Your task to perform on an android device: Add "razer naga" to the cart on walmart.com Image 0: 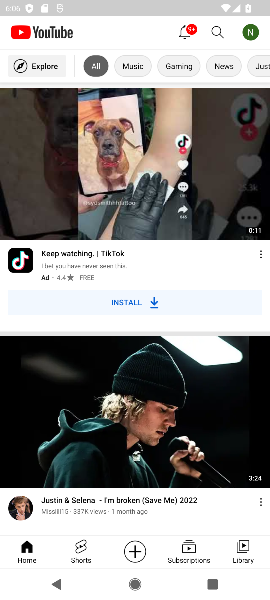
Step 0: press home button
Your task to perform on an android device: Add "razer naga" to the cart on walmart.com Image 1: 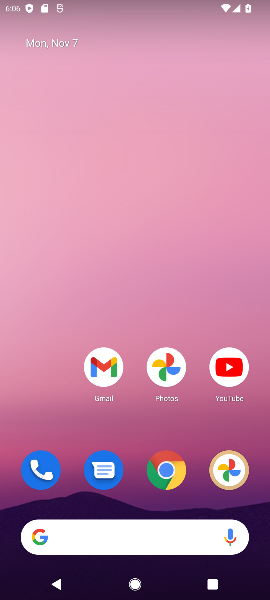
Step 1: click (176, 454)
Your task to perform on an android device: Add "razer naga" to the cart on walmart.com Image 2: 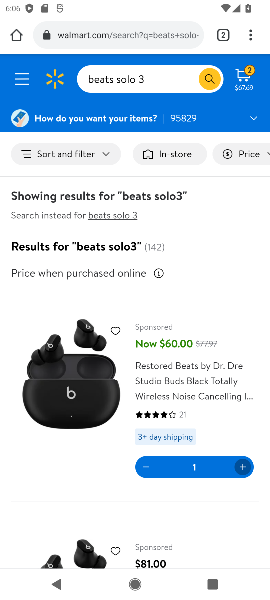
Step 2: click (134, 39)
Your task to perform on an android device: Add "razer naga" to the cart on walmart.com Image 3: 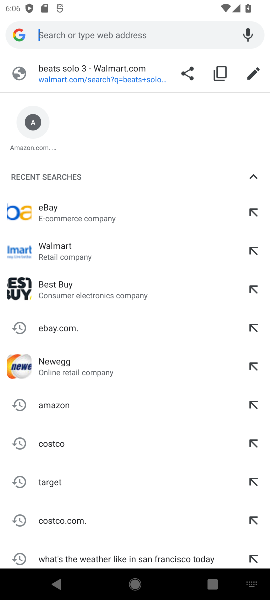
Step 3: click (55, 250)
Your task to perform on an android device: Add "razer naga" to the cart on walmart.com Image 4: 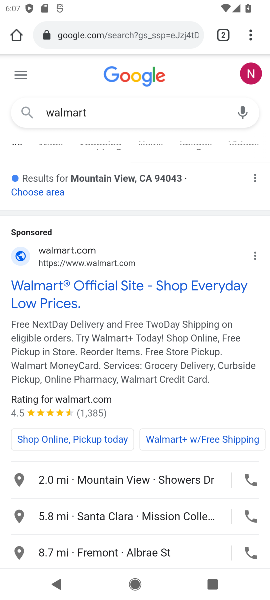
Step 4: click (51, 294)
Your task to perform on an android device: Add "razer naga" to the cart on walmart.com Image 5: 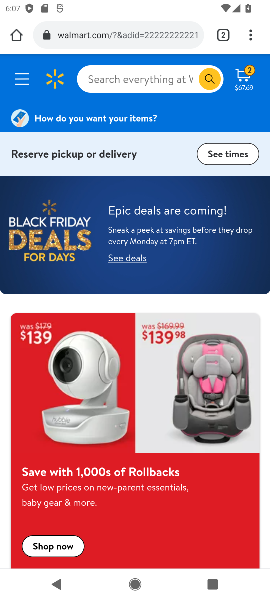
Step 5: click (101, 75)
Your task to perform on an android device: Add "razer naga" to the cart on walmart.com Image 6: 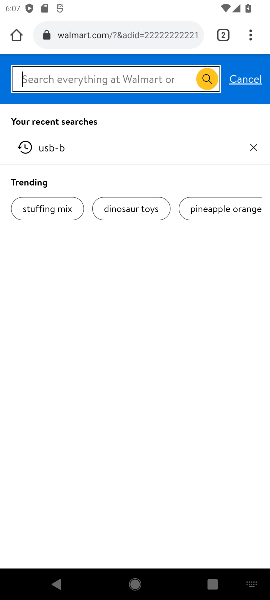
Step 6: type "razer naga"
Your task to perform on an android device: Add "razer naga" to the cart on walmart.com Image 7: 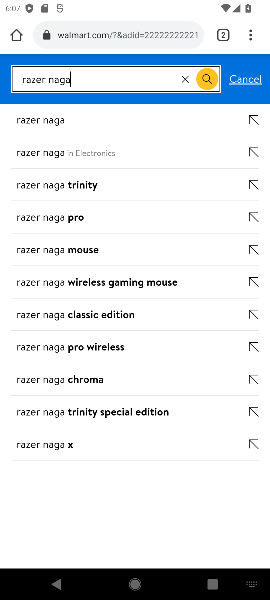
Step 7: click (209, 82)
Your task to perform on an android device: Add "razer naga" to the cart on walmart.com Image 8: 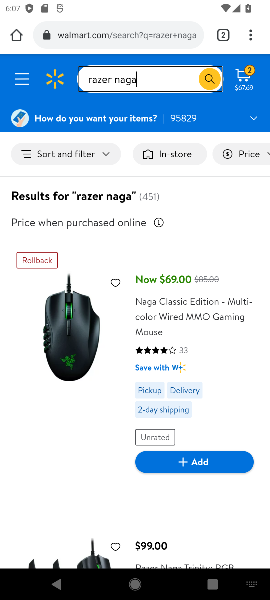
Step 8: click (198, 458)
Your task to perform on an android device: Add "razer naga" to the cart on walmart.com Image 9: 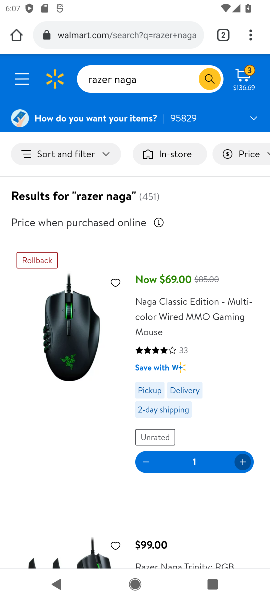
Step 9: task complete